Your task to perform on an android device: Open Youtube and go to the subscriptions tab Image 0: 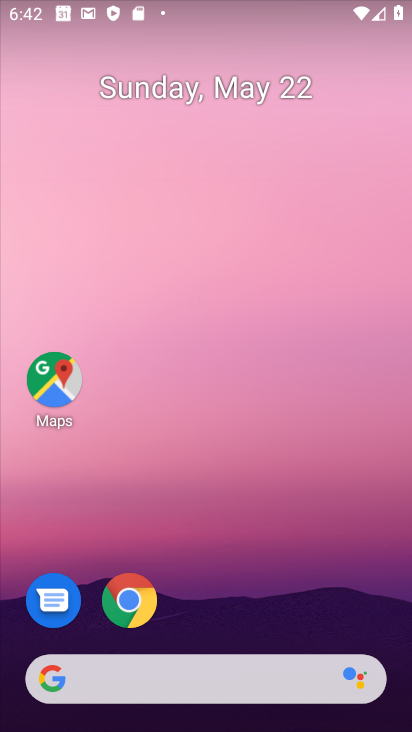
Step 0: drag from (375, 622) to (279, 81)
Your task to perform on an android device: Open Youtube and go to the subscriptions tab Image 1: 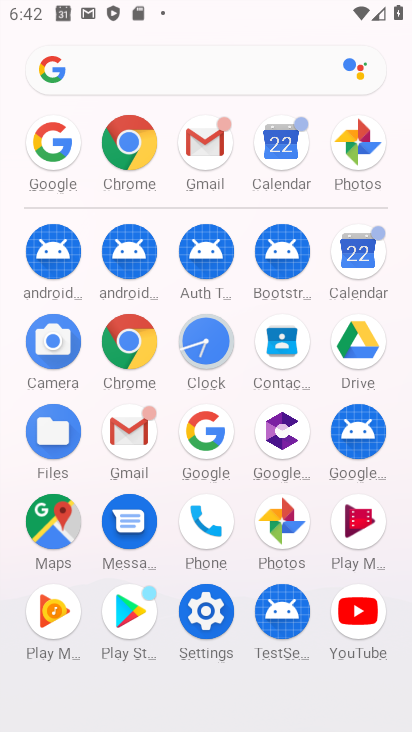
Step 1: click (366, 621)
Your task to perform on an android device: Open Youtube and go to the subscriptions tab Image 2: 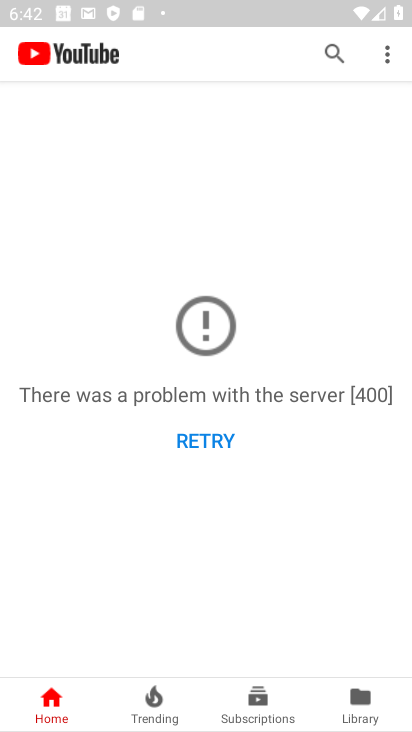
Step 2: task complete